Your task to perform on an android device: set an alarm Image 0: 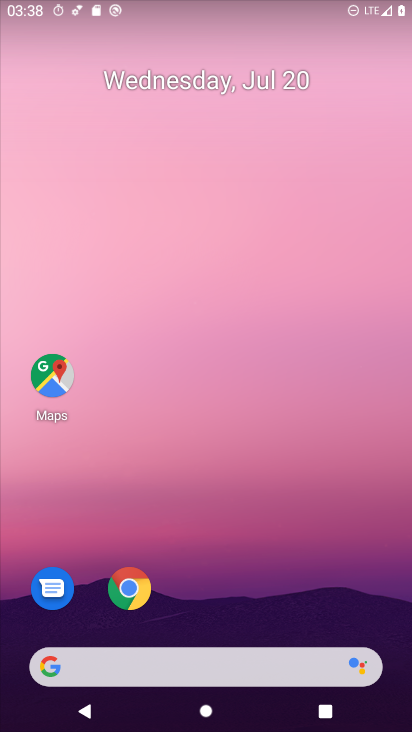
Step 0: drag from (217, 637) to (162, 108)
Your task to perform on an android device: set an alarm Image 1: 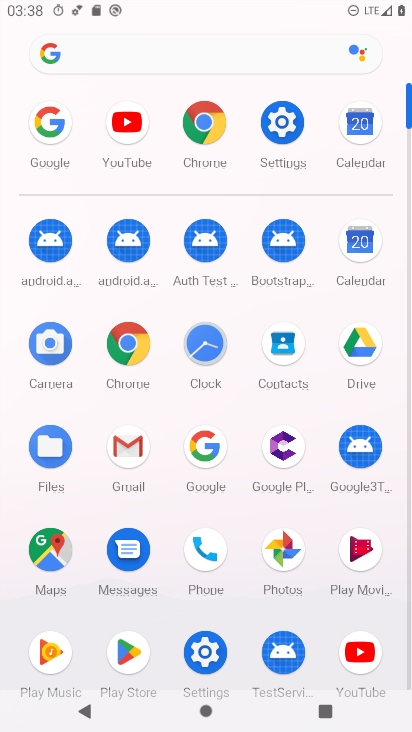
Step 1: click (195, 313)
Your task to perform on an android device: set an alarm Image 2: 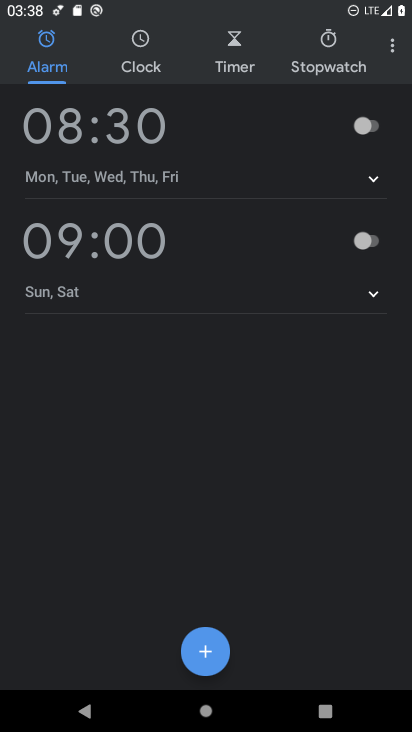
Step 2: click (219, 657)
Your task to perform on an android device: set an alarm Image 3: 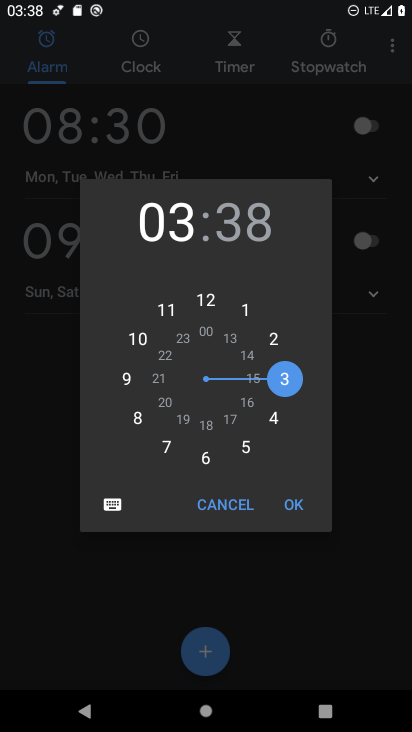
Step 3: click (291, 508)
Your task to perform on an android device: set an alarm Image 4: 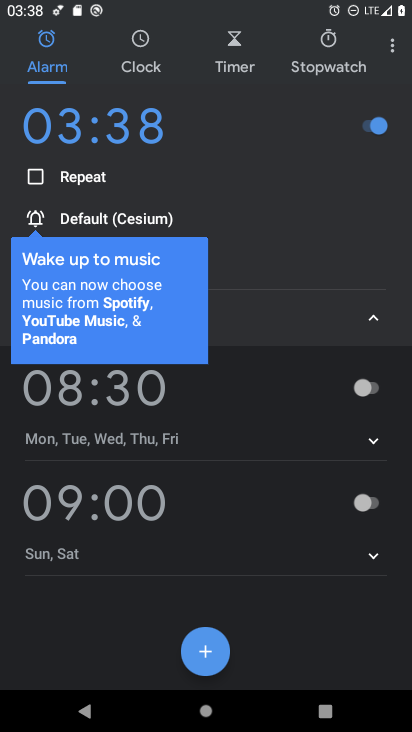
Step 4: task complete